Your task to perform on an android device: Show me the alarms in the clock app Image 0: 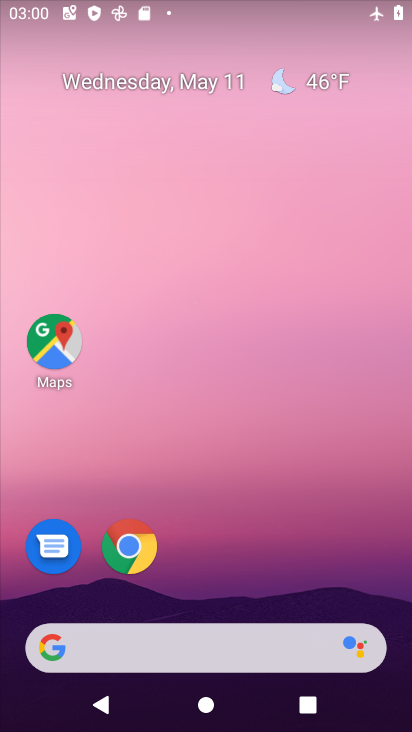
Step 0: click (242, 212)
Your task to perform on an android device: Show me the alarms in the clock app Image 1: 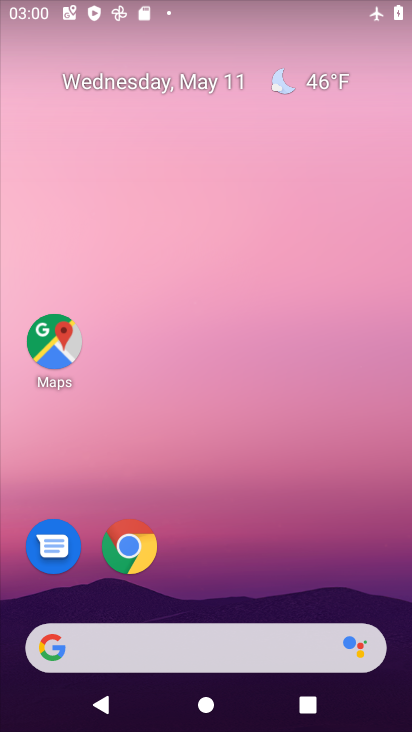
Step 1: drag from (183, 565) to (280, 214)
Your task to perform on an android device: Show me the alarms in the clock app Image 2: 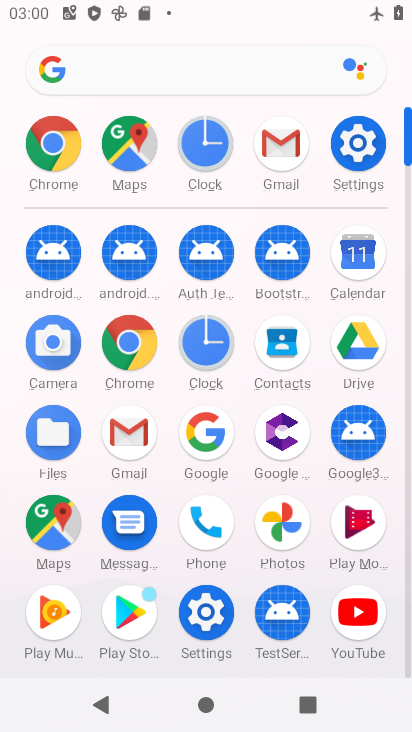
Step 2: click (197, 335)
Your task to perform on an android device: Show me the alarms in the clock app Image 3: 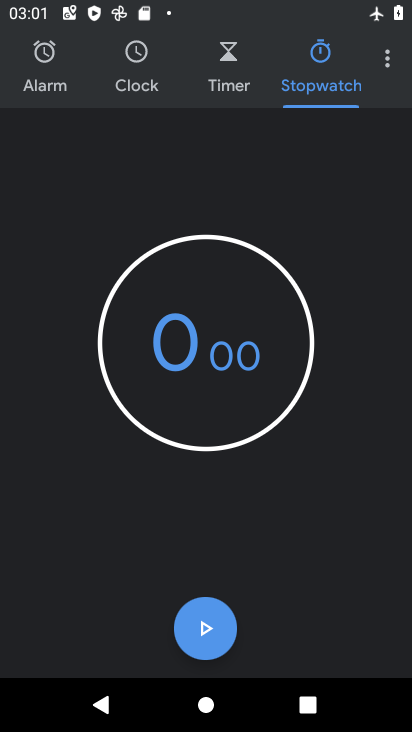
Step 3: click (36, 76)
Your task to perform on an android device: Show me the alarms in the clock app Image 4: 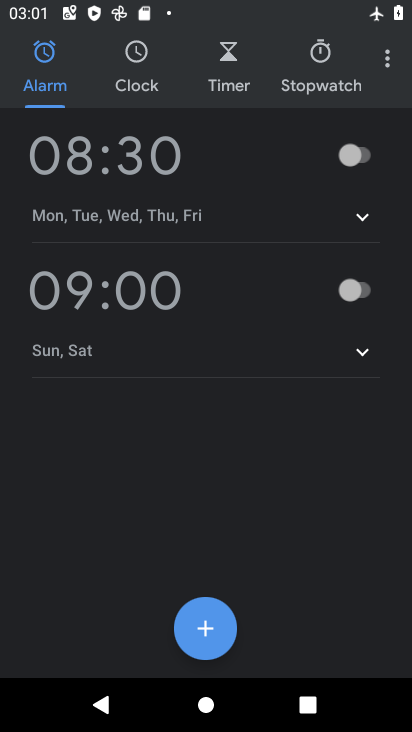
Step 4: task complete